Your task to perform on an android device: toggle notification dots Image 0: 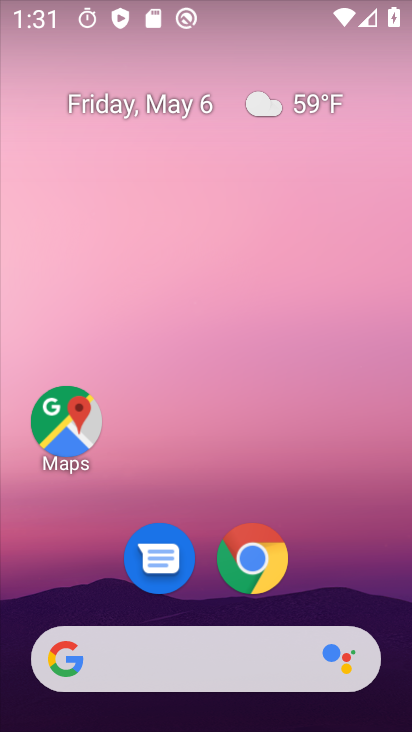
Step 0: drag from (204, 724) to (188, 131)
Your task to perform on an android device: toggle notification dots Image 1: 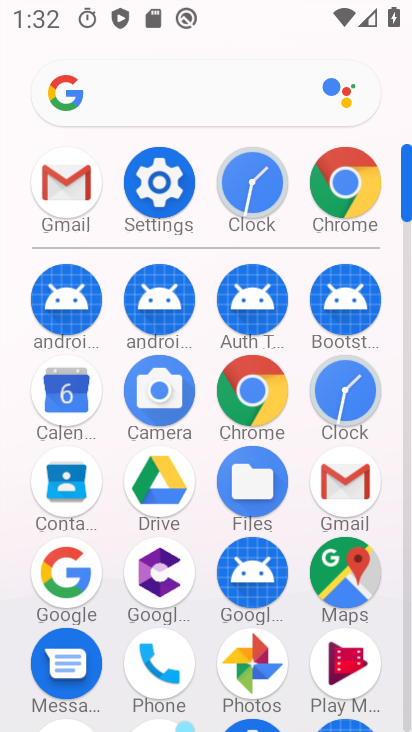
Step 1: click (166, 183)
Your task to perform on an android device: toggle notification dots Image 2: 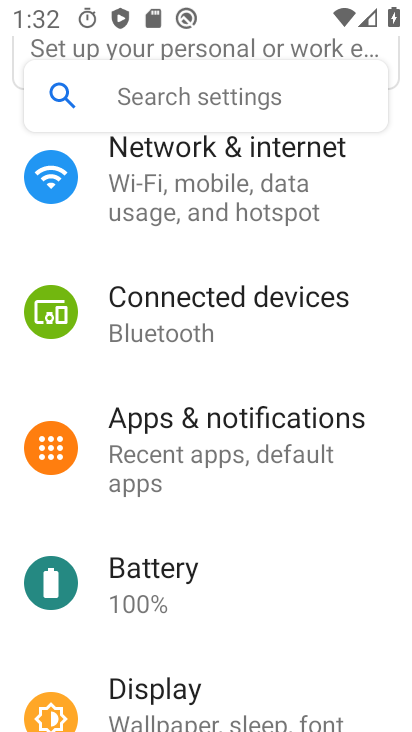
Step 2: click (154, 416)
Your task to perform on an android device: toggle notification dots Image 3: 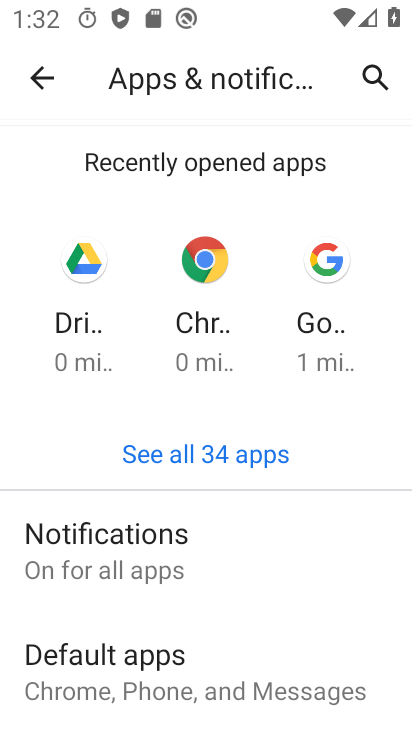
Step 3: click (113, 551)
Your task to perform on an android device: toggle notification dots Image 4: 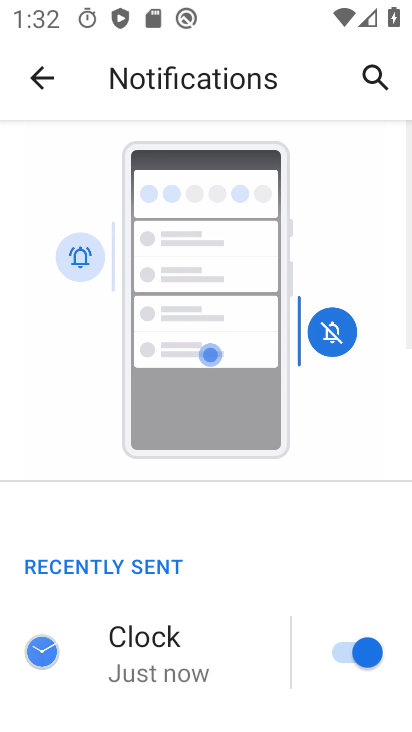
Step 4: drag from (235, 713) to (225, 332)
Your task to perform on an android device: toggle notification dots Image 5: 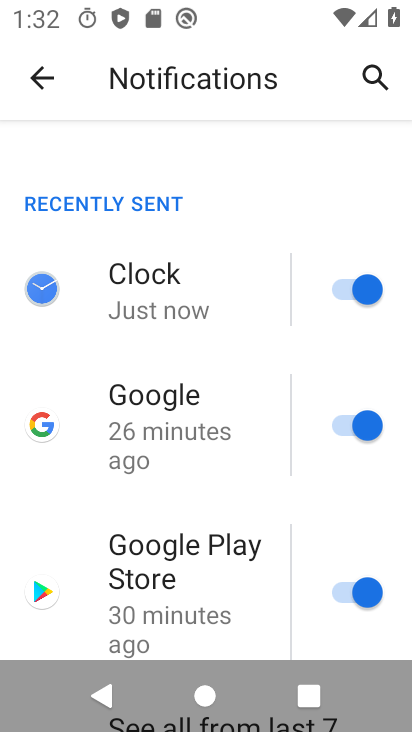
Step 5: drag from (242, 647) to (226, 226)
Your task to perform on an android device: toggle notification dots Image 6: 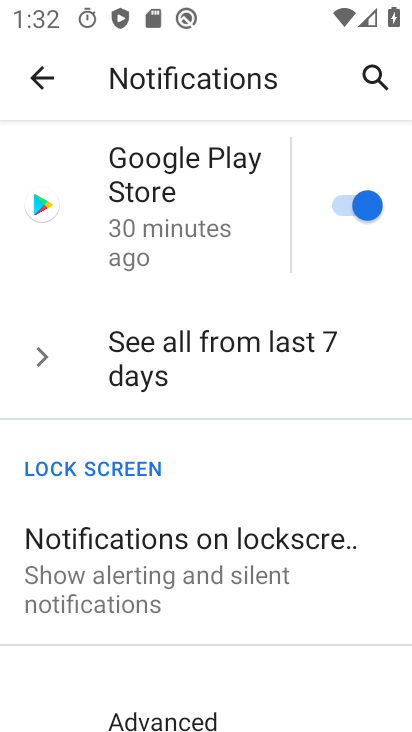
Step 6: drag from (233, 651) to (209, 366)
Your task to perform on an android device: toggle notification dots Image 7: 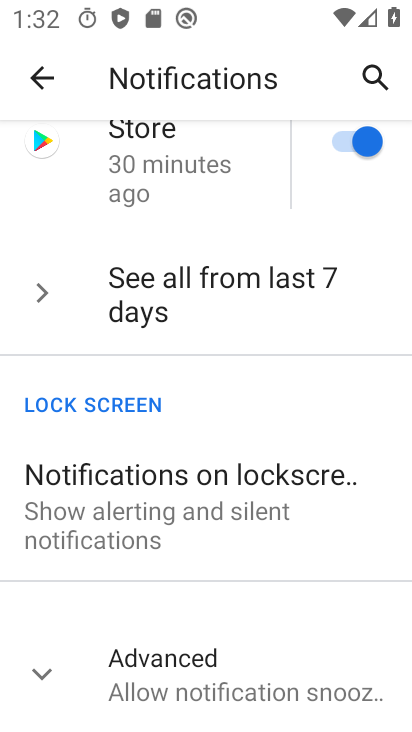
Step 7: click (153, 669)
Your task to perform on an android device: toggle notification dots Image 8: 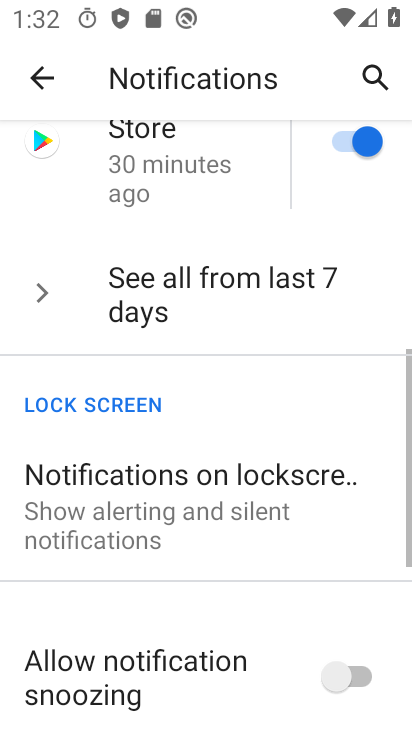
Step 8: drag from (202, 697) to (202, 271)
Your task to perform on an android device: toggle notification dots Image 9: 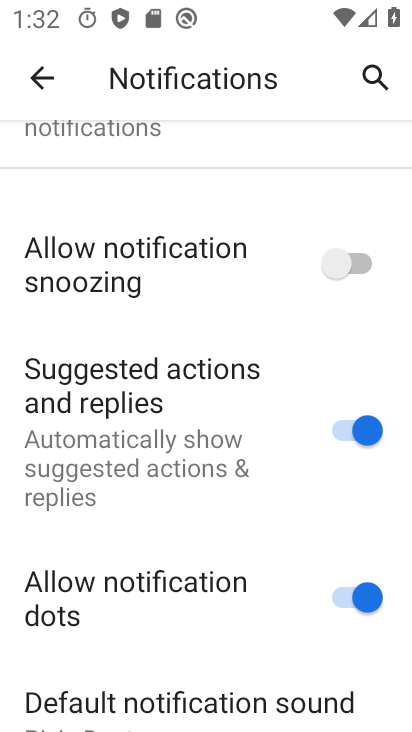
Step 9: click (334, 597)
Your task to perform on an android device: toggle notification dots Image 10: 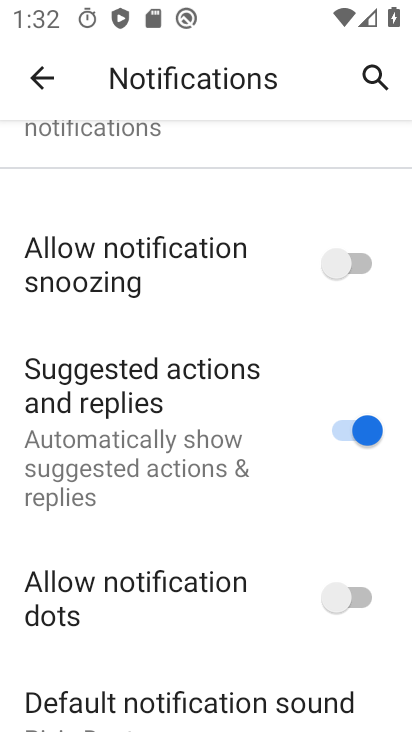
Step 10: task complete